Your task to perform on an android device: Open calendar and show me the third week of next month Image 0: 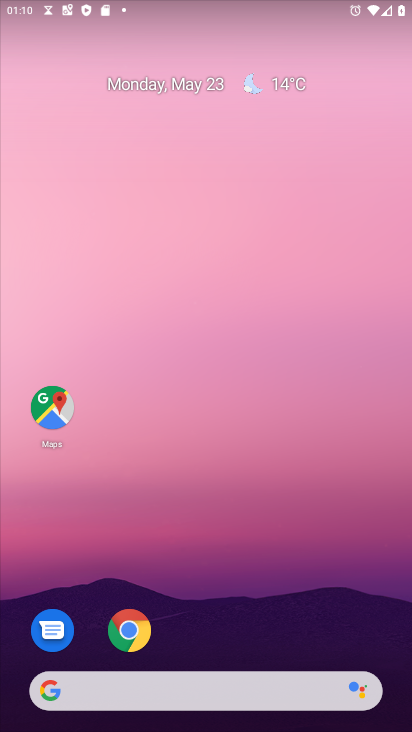
Step 0: click (200, 81)
Your task to perform on an android device: Open calendar and show me the third week of next month Image 1: 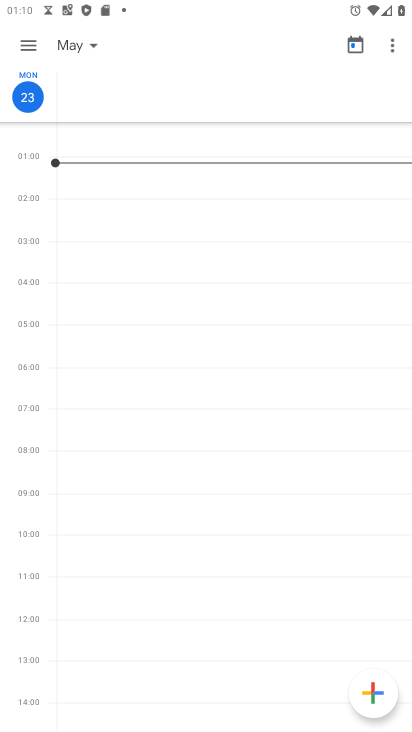
Step 1: click (81, 48)
Your task to perform on an android device: Open calendar and show me the third week of next month Image 2: 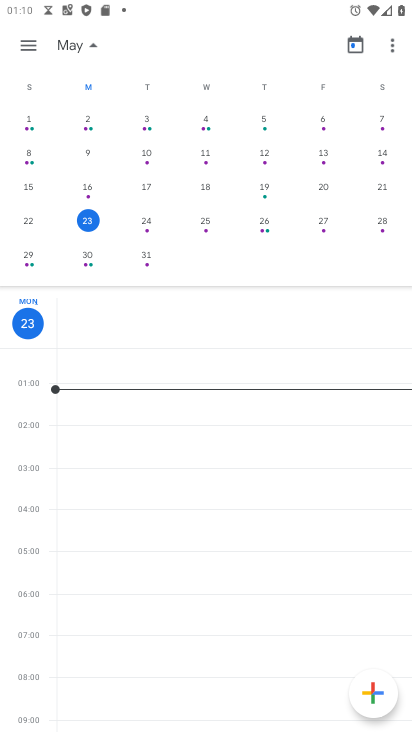
Step 2: click (27, 50)
Your task to perform on an android device: Open calendar and show me the third week of next month Image 3: 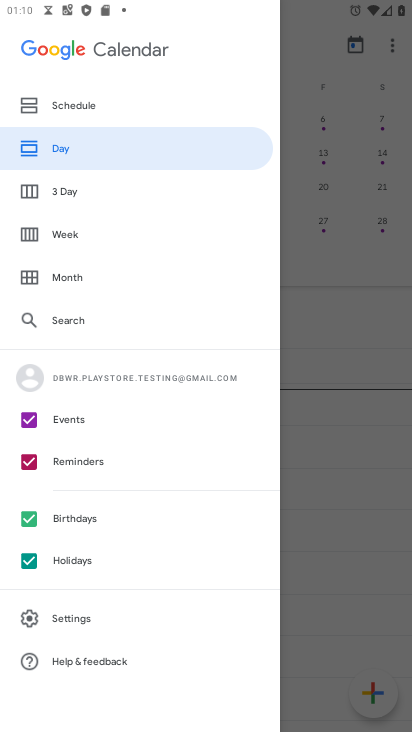
Step 3: click (95, 234)
Your task to perform on an android device: Open calendar and show me the third week of next month Image 4: 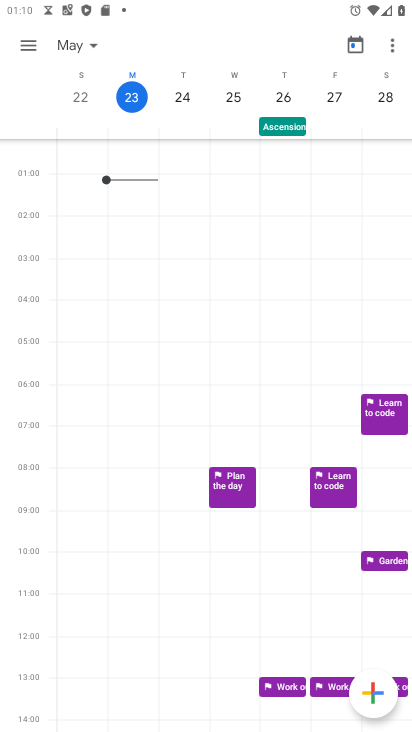
Step 4: click (91, 45)
Your task to perform on an android device: Open calendar and show me the third week of next month Image 5: 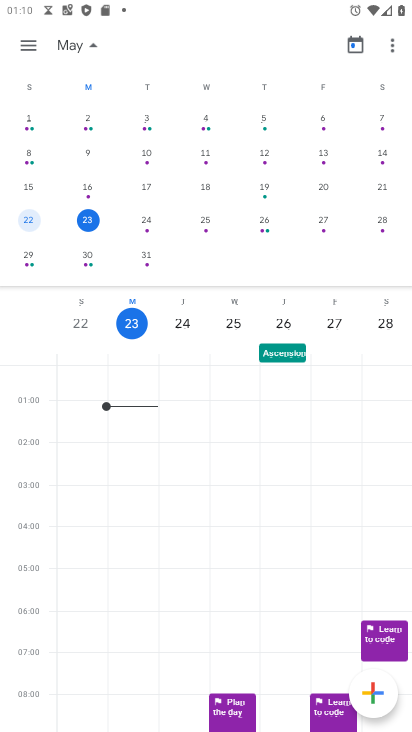
Step 5: drag from (361, 198) to (5, 204)
Your task to perform on an android device: Open calendar and show me the third week of next month Image 6: 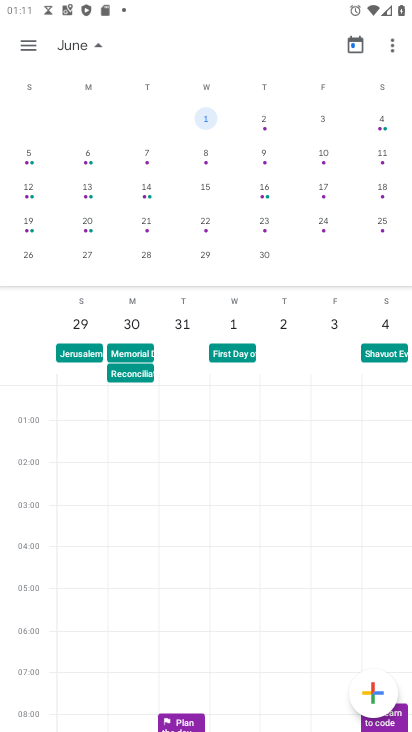
Step 6: click (31, 192)
Your task to perform on an android device: Open calendar and show me the third week of next month Image 7: 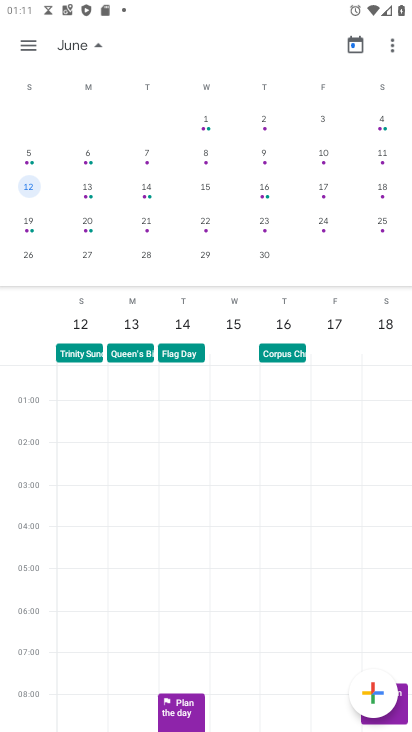
Step 7: task complete